Your task to perform on an android device: delete location history Image 0: 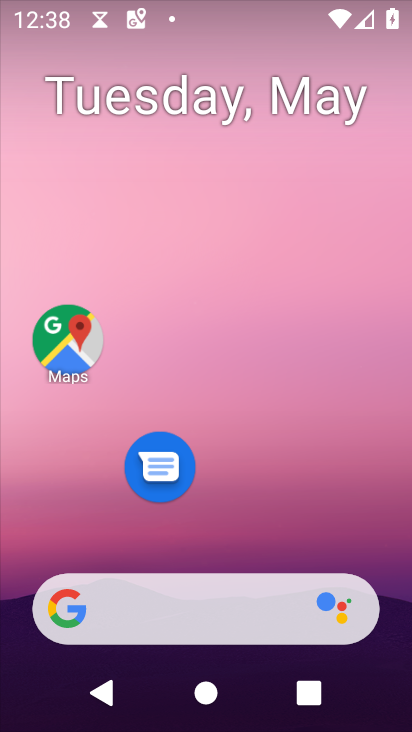
Step 0: drag from (294, 537) to (287, 43)
Your task to perform on an android device: delete location history Image 1: 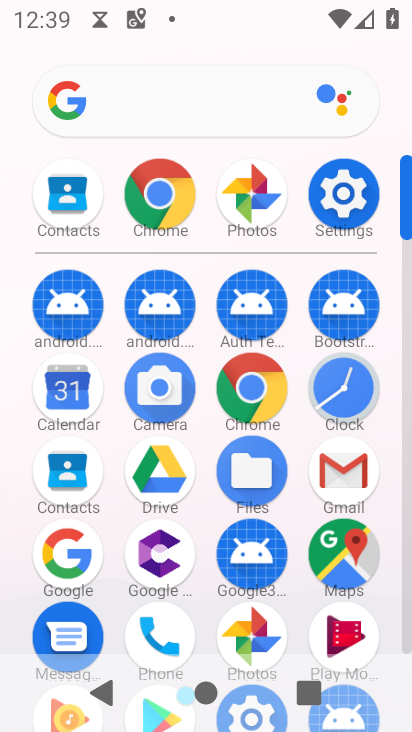
Step 1: click (344, 547)
Your task to perform on an android device: delete location history Image 2: 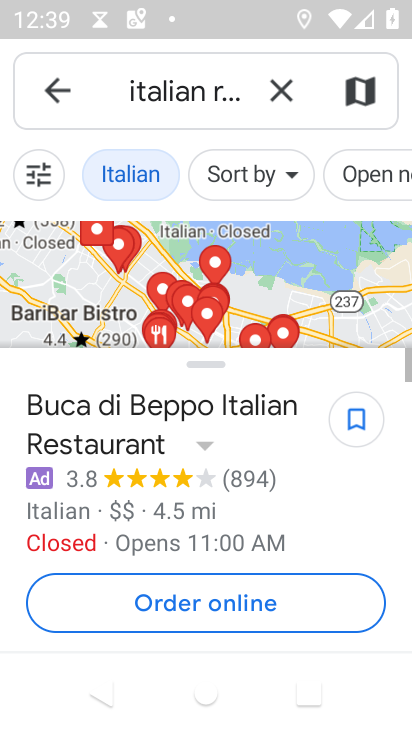
Step 2: click (56, 84)
Your task to perform on an android device: delete location history Image 3: 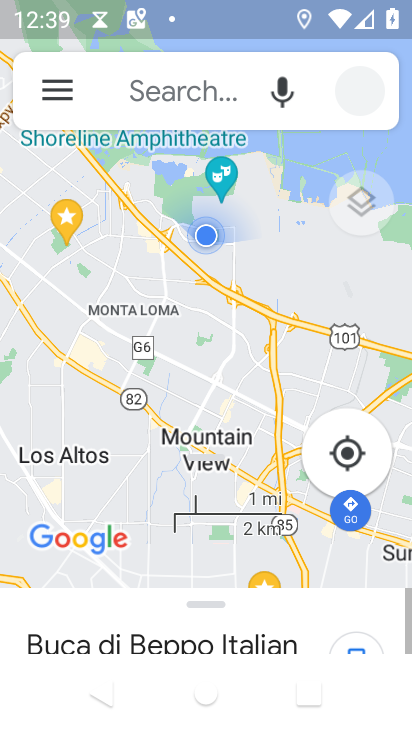
Step 3: click (56, 84)
Your task to perform on an android device: delete location history Image 4: 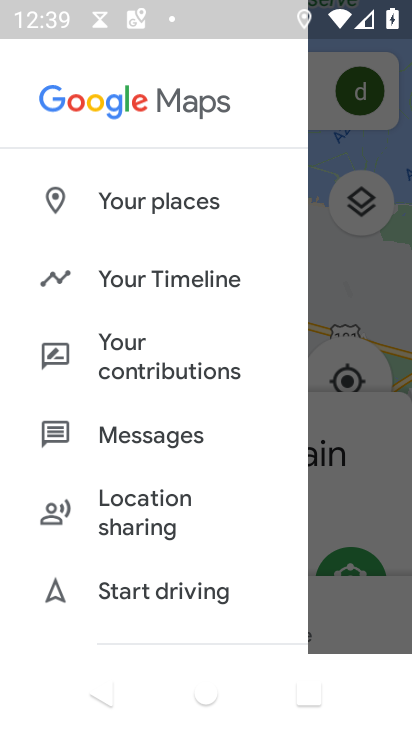
Step 4: click (188, 280)
Your task to perform on an android device: delete location history Image 5: 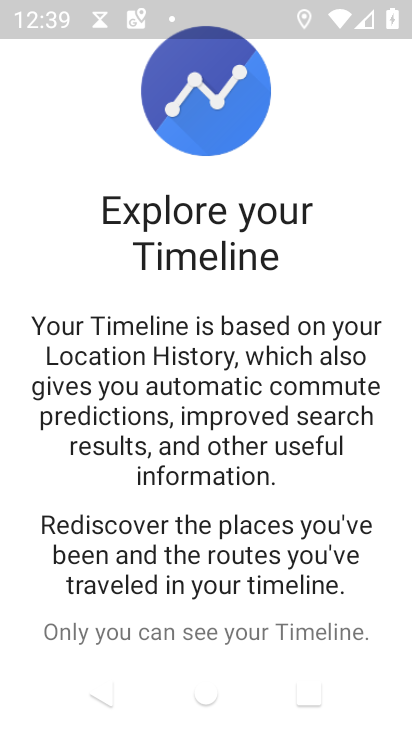
Step 5: drag from (257, 556) to (248, 249)
Your task to perform on an android device: delete location history Image 6: 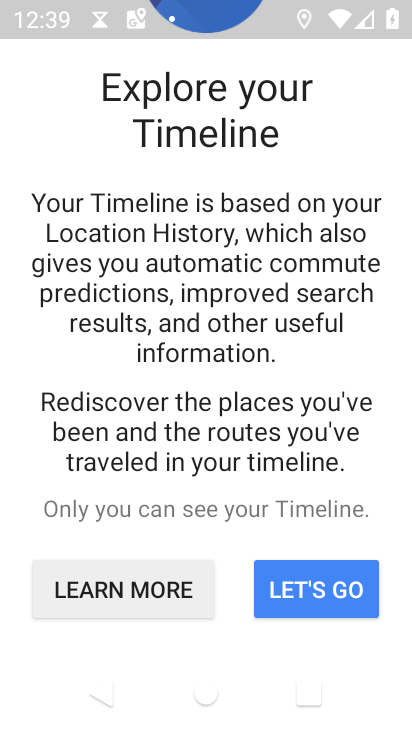
Step 6: click (308, 583)
Your task to perform on an android device: delete location history Image 7: 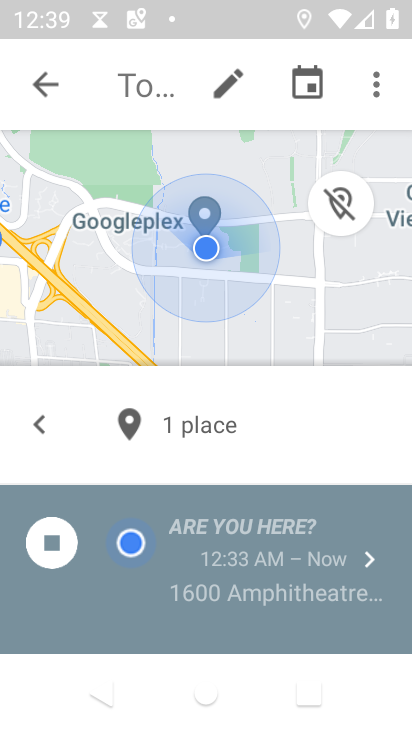
Step 7: click (382, 83)
Your task to perform on an android device: delete location history Image 8: 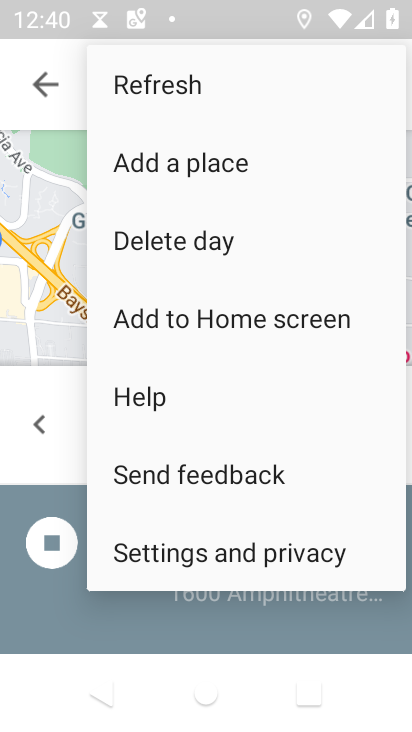
Step 8: click (238, 548)
Your task to perform on an android device: delete location history Image 9: 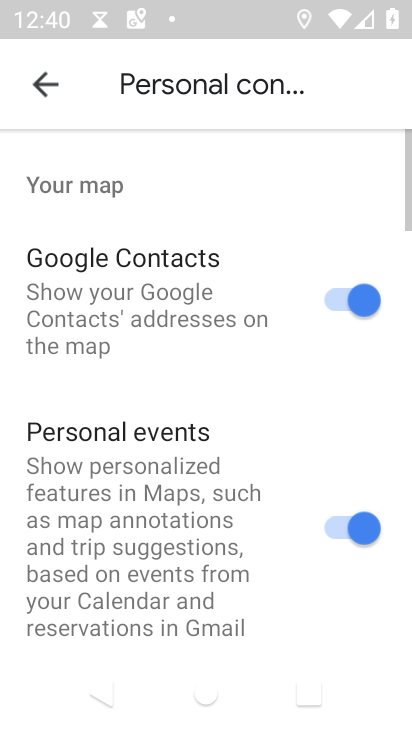
Step 9: drag from (238, 605) to (246, 153)
Your task to perform on an android device: delete location history Image 10: 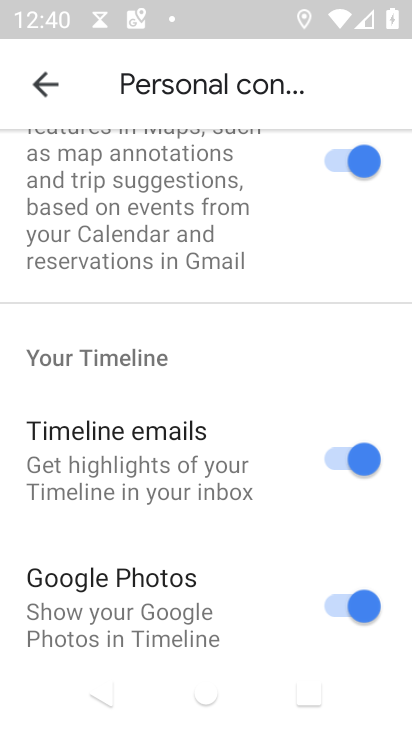
Step 10: drag from (225, 557) to (223, 198)
Your task to perform on an android device: delete location history Image 11: 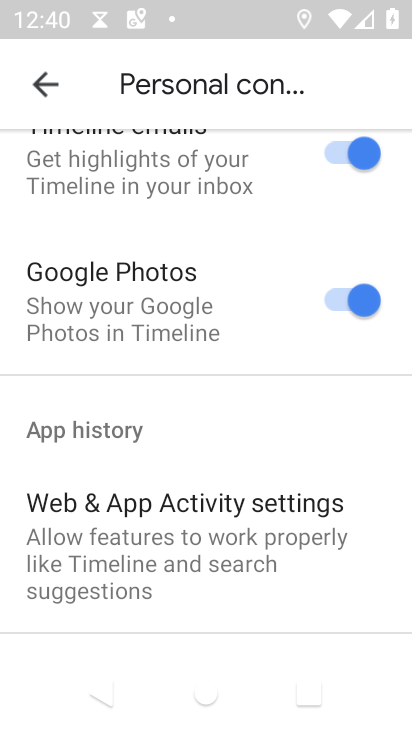
Step 11: drag from (180, 558) to (232, 191)
Your task to perform on an android device: delete location history Image 12: 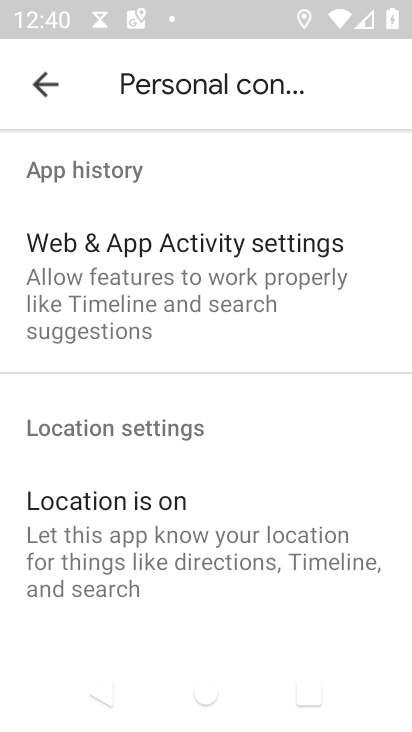
Step 12: drag from (262, 455) to (279, 213)
Your task to perform on an android device: delete location history Image 13: 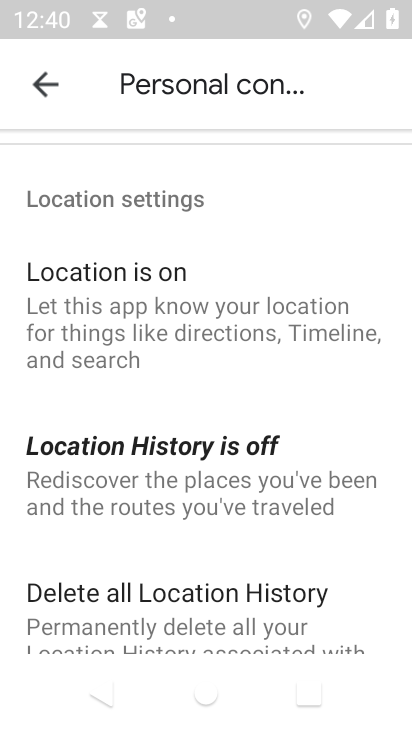
Step 13: click (216, 601)
Your task to perform on an android device: delete location history Image 14: 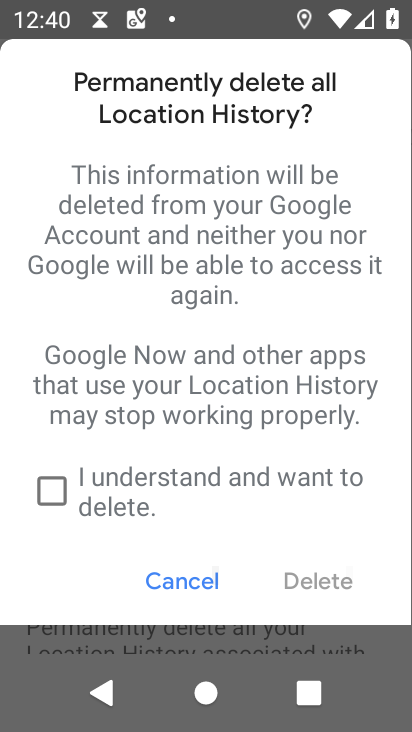
Step 14: click (64, 492)
Your task to perform on an android device: delete location history Image 15: 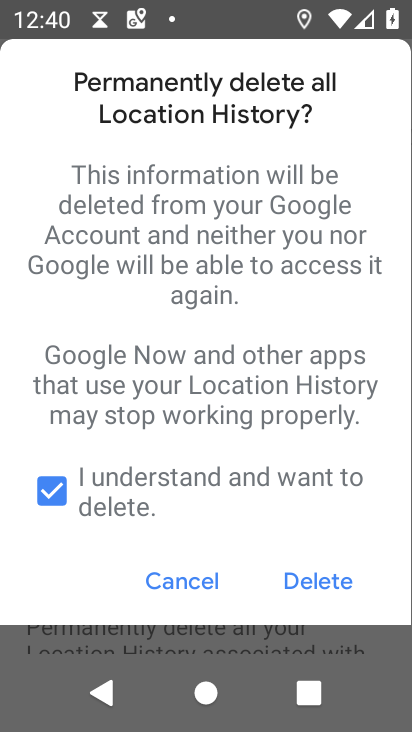
Step 15: click (333, 577)
Your task to perform on an android device: delete location history Image 16: 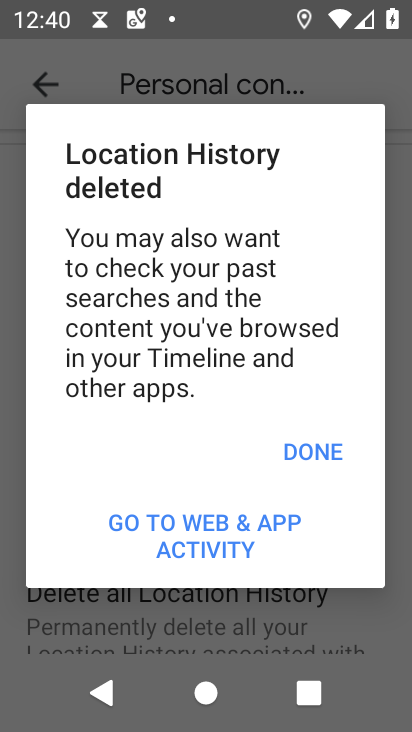
Step 16: click (316, 457)
Your task to perform on an android device: delete location history Image 17: 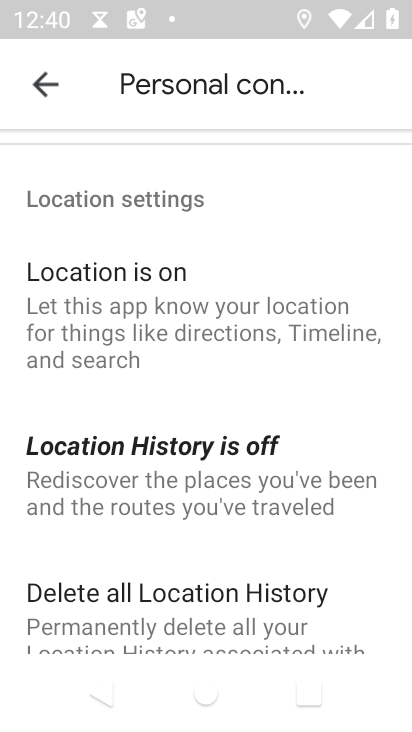
Step 17: task complete